Your task to perform on an android device: Add bose soundlink to the cart on newegg.com Image 0: 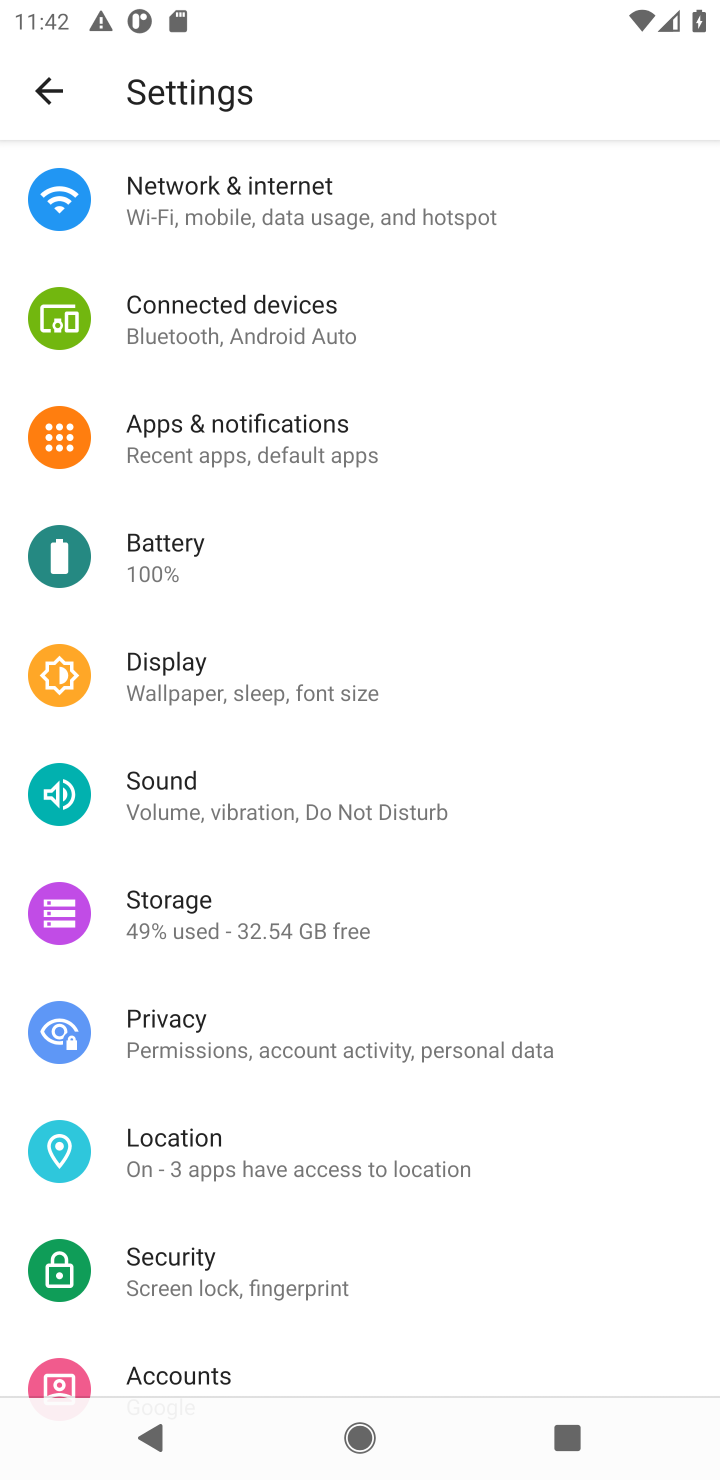
Step 0: press home button
Your task to perform on an android device: Add bose soundlink to the cart on newegg.com Image 1: 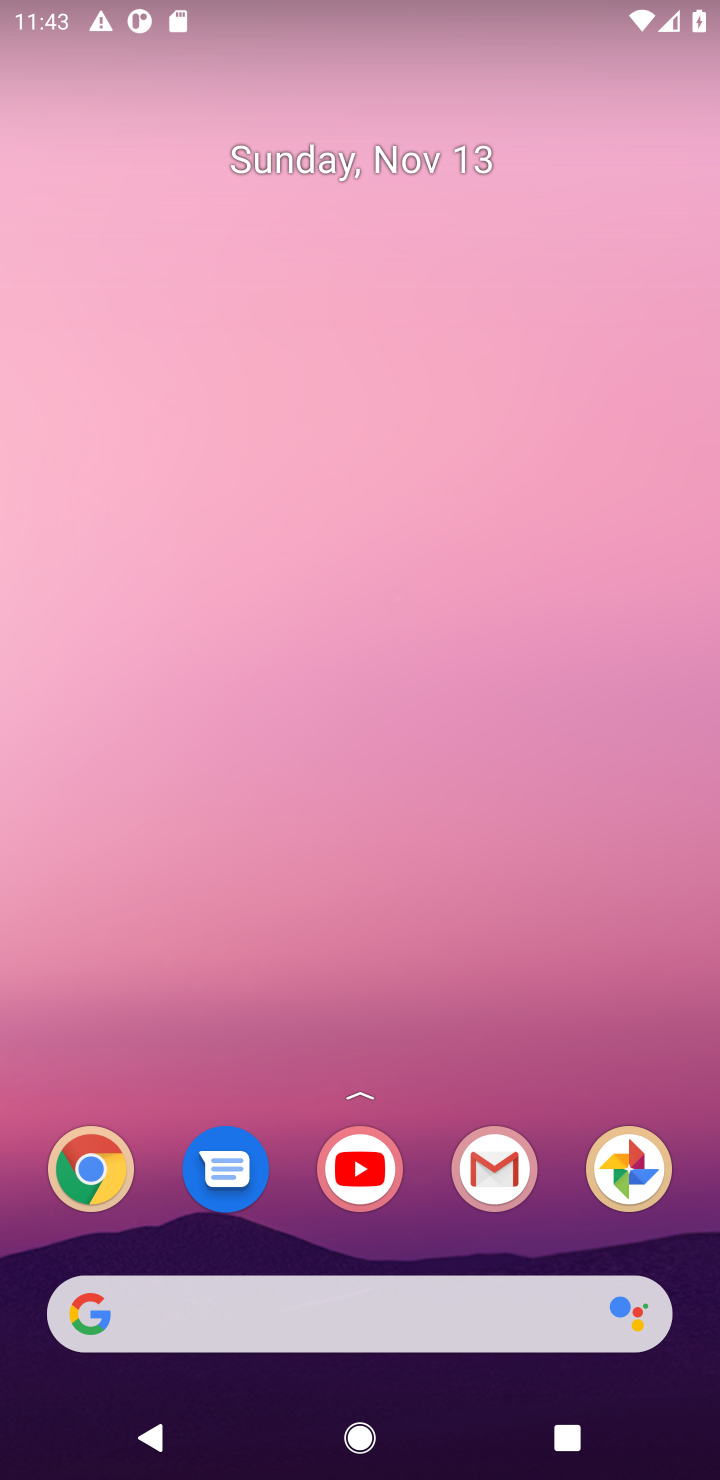
Step 1: drag from (513, 1183) to (478, 5)
Your task to perform on an android device: Add bose soundlink to the cart on newegg.com Image 2: 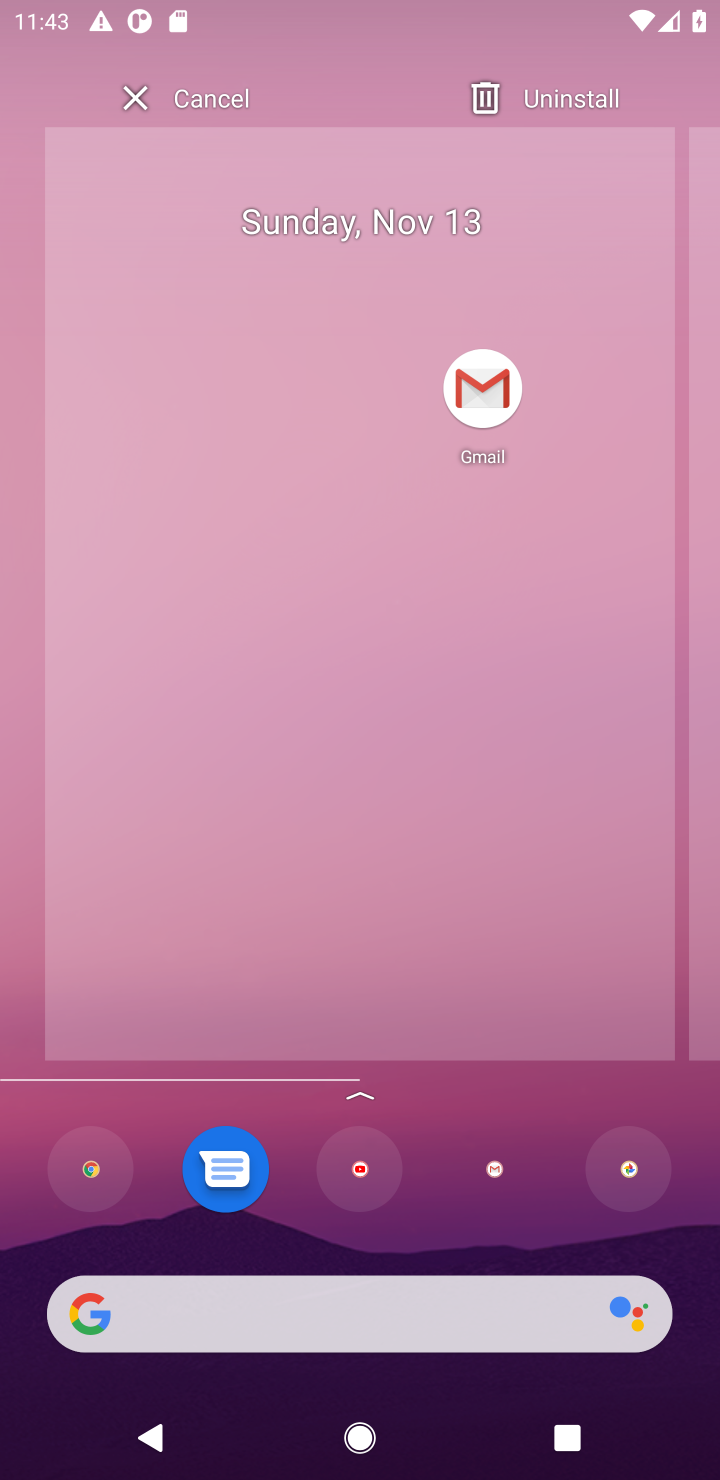
Step 2: click (288, 1229)
Your task to perform on an android device: Add bose soundlink to the cart on newegg.com Image 3: 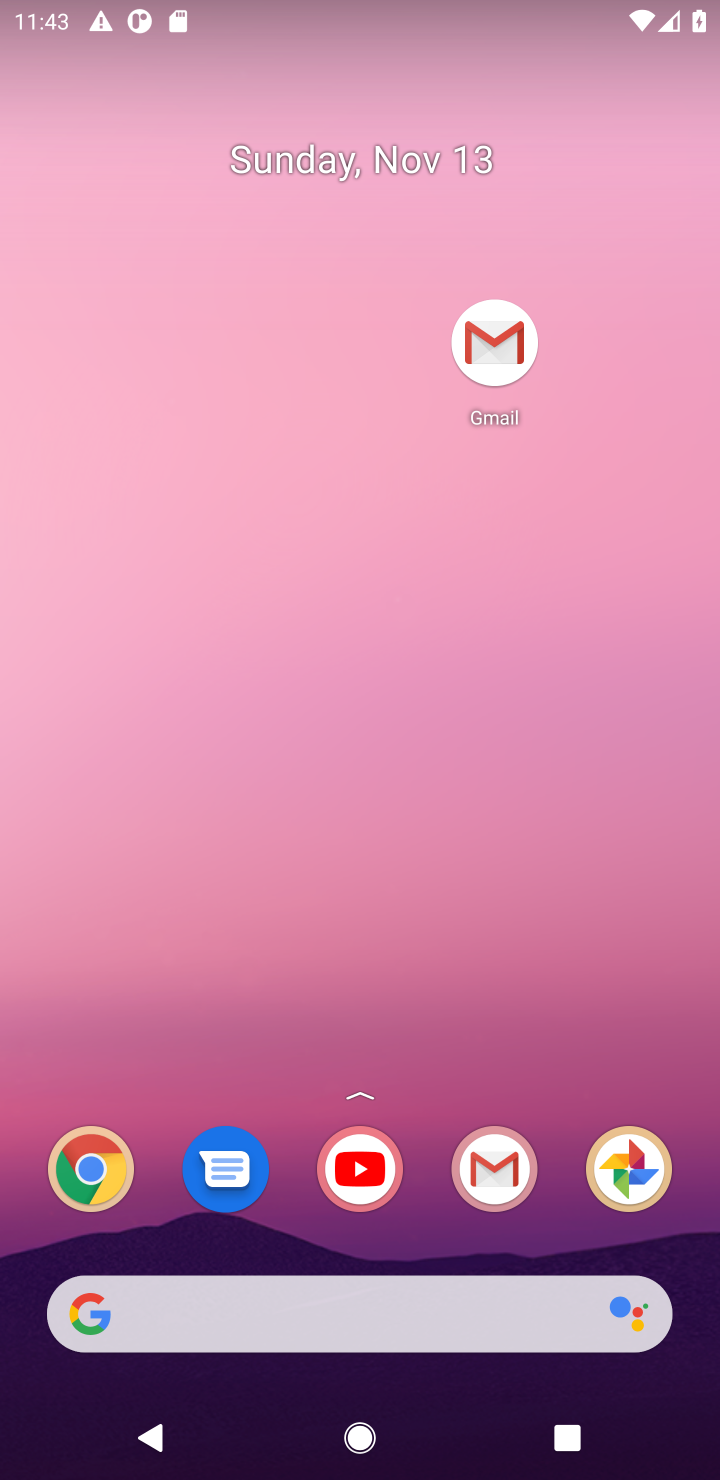
Step 3: drag from (391, 1233) to (262, 0)
Your task to perform on an android device: Add bose soundlink to the cart on newegg.com Image 4: 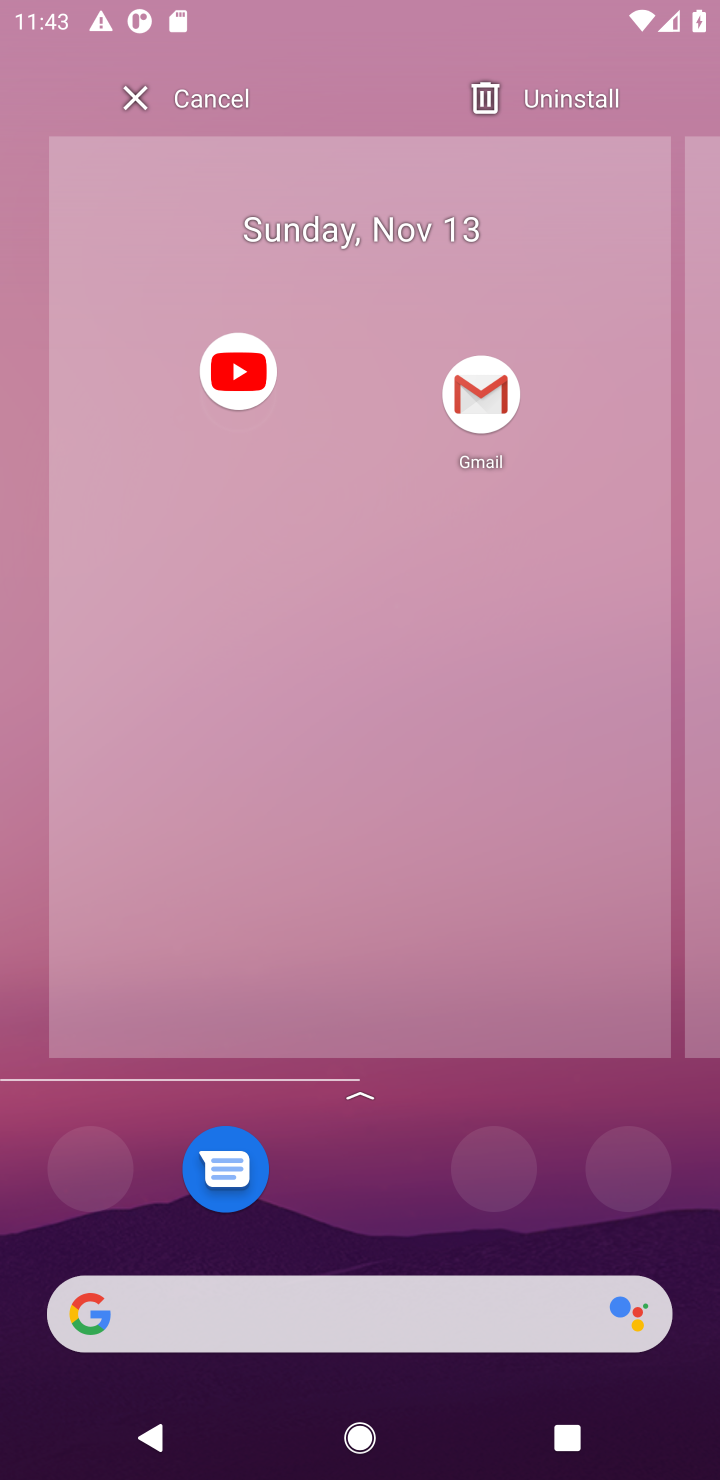
Step 4: click (366, 892)
Your task to perform on an android device: Add bose soundlink to the cart on newegg.com Image 5: 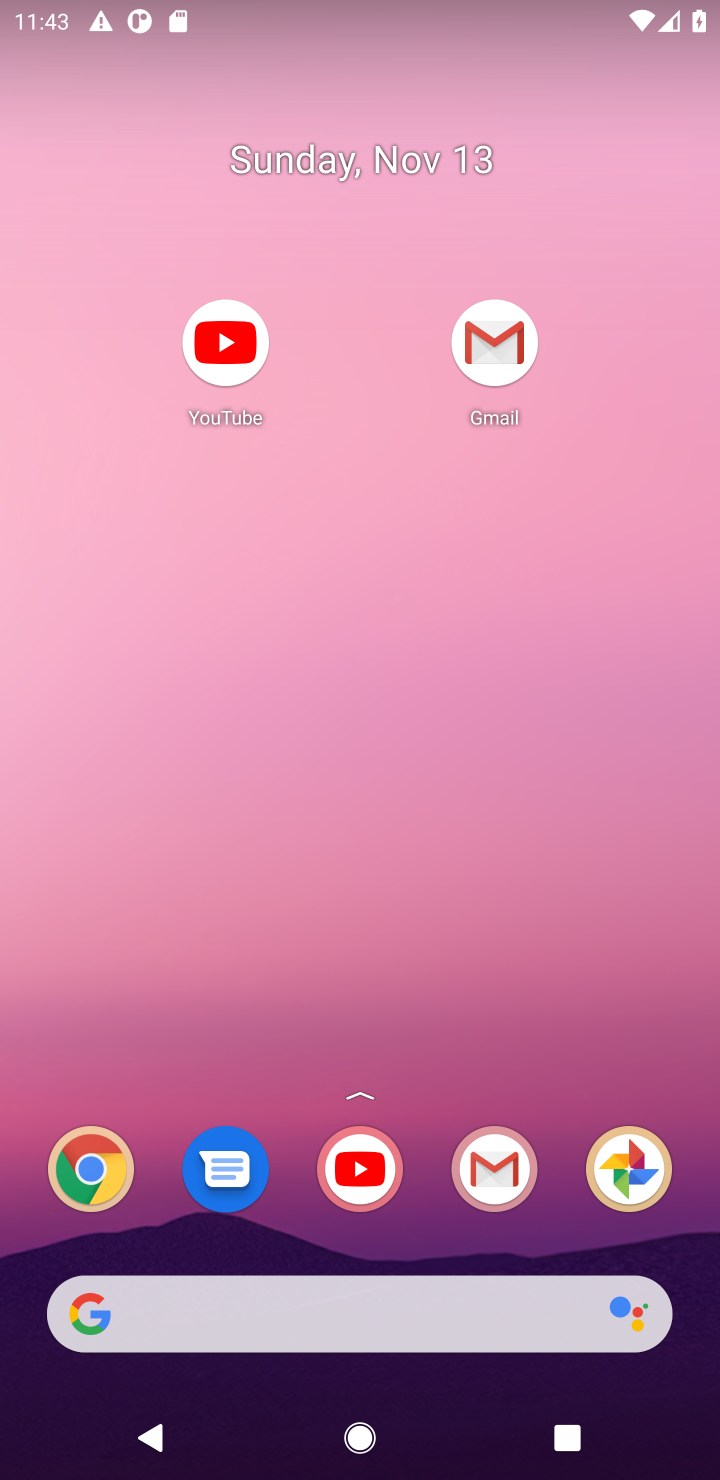
Step 5: drag from (430, 1233) to (420, 45)
Your task to perform on an android device: Add bose soundlink to the cart on newegg.com Image 6: 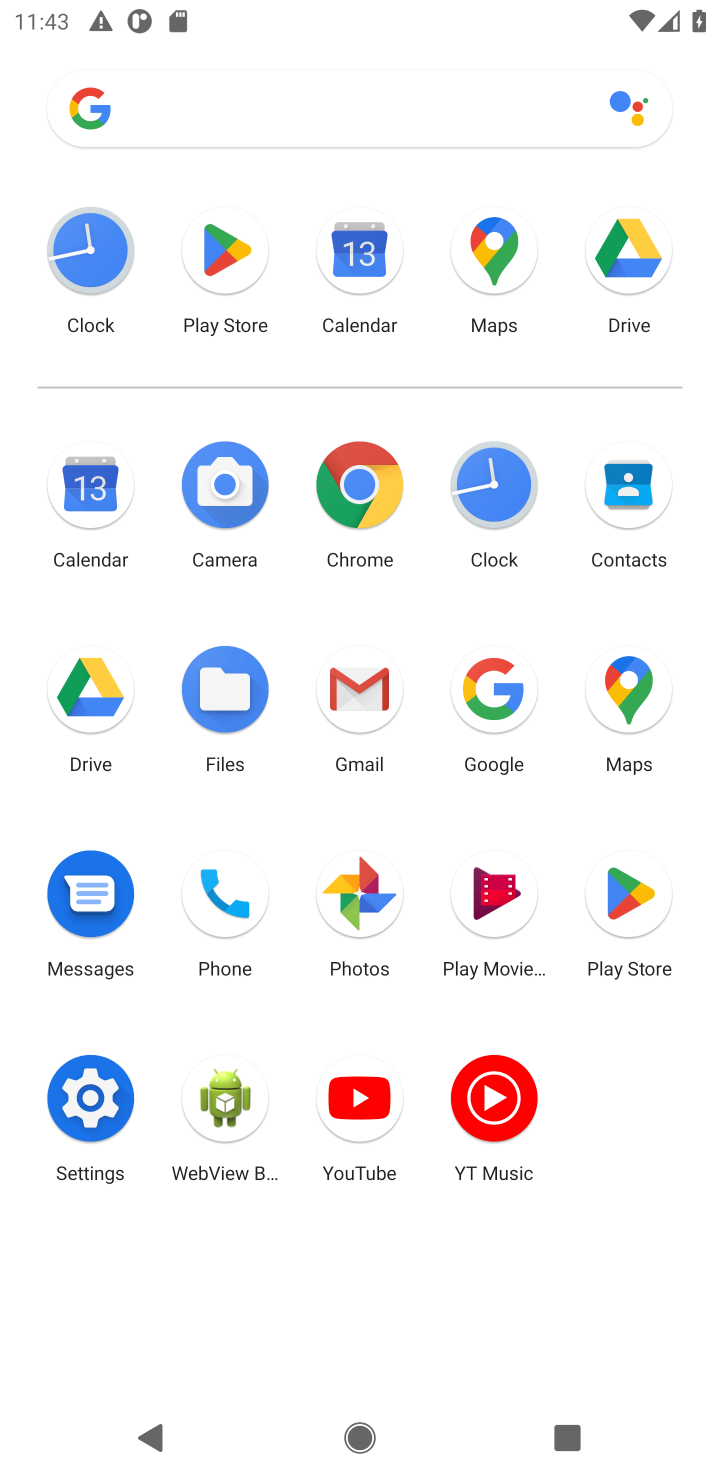
Step 6: click (355, 494)
Your task to perform on an android device: Add bose soundlink to the cart on newegg.com Image 7: 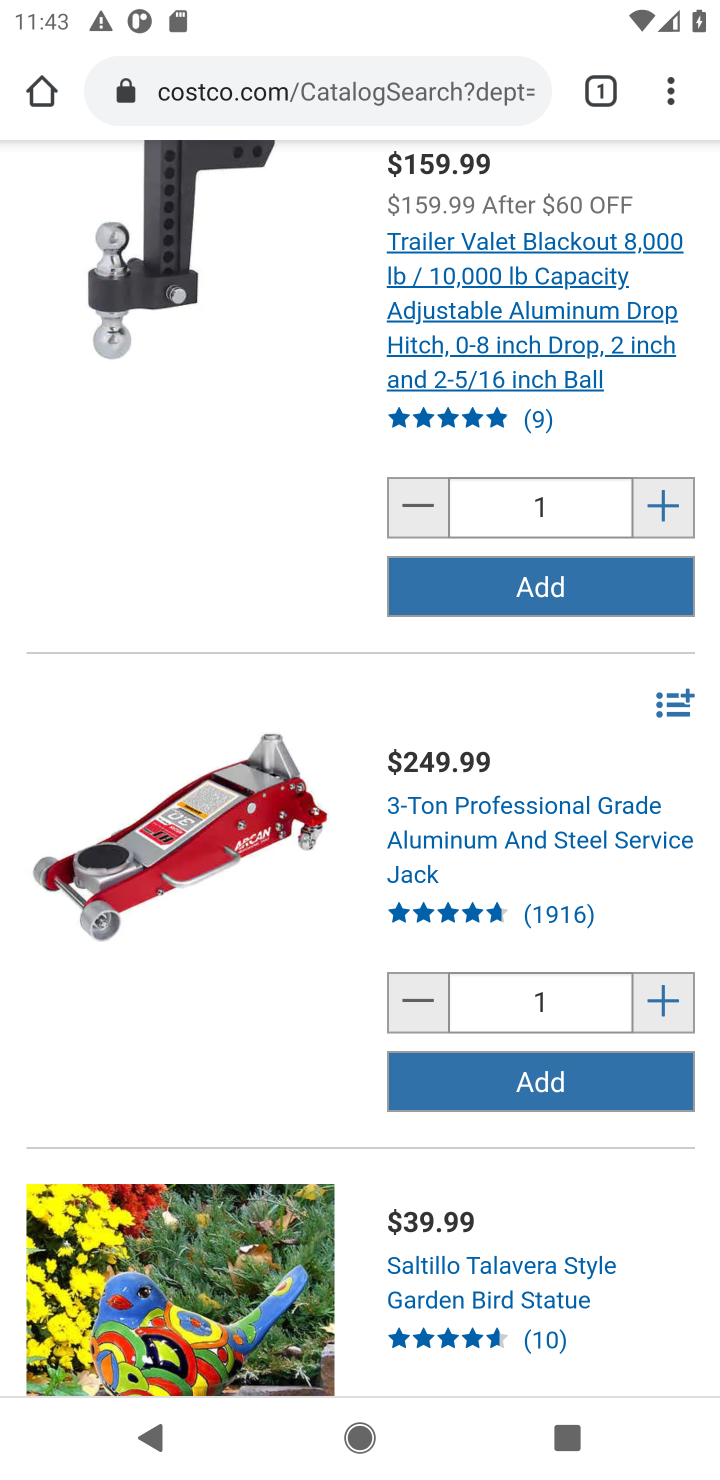
Step 7: click (450, 100)
Your task to perform on an android device: Add bose soundlink to the cart on newegg.com Image 8: 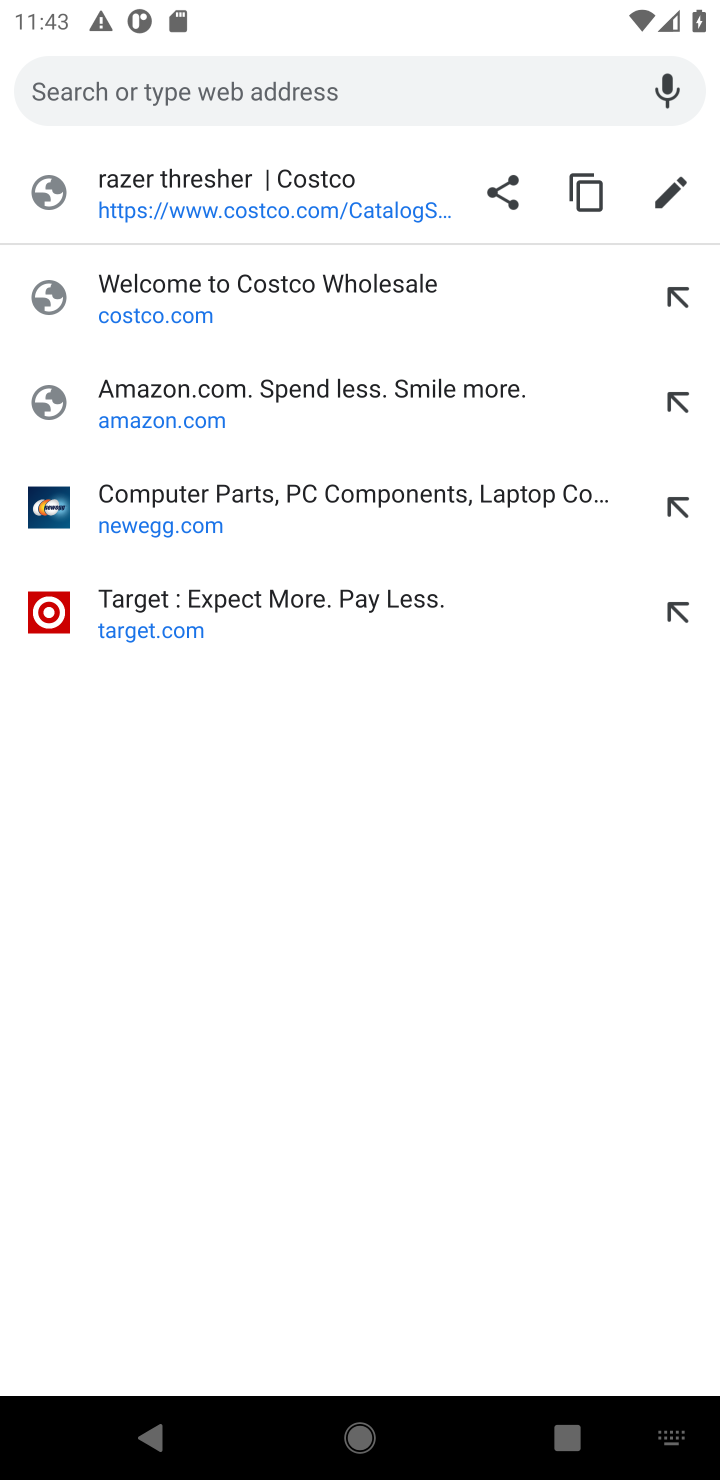
Step 8: type "newegg.com"
Your task to perform on an android device: Add bose soundlink to the cart on newegg.com Image 9: 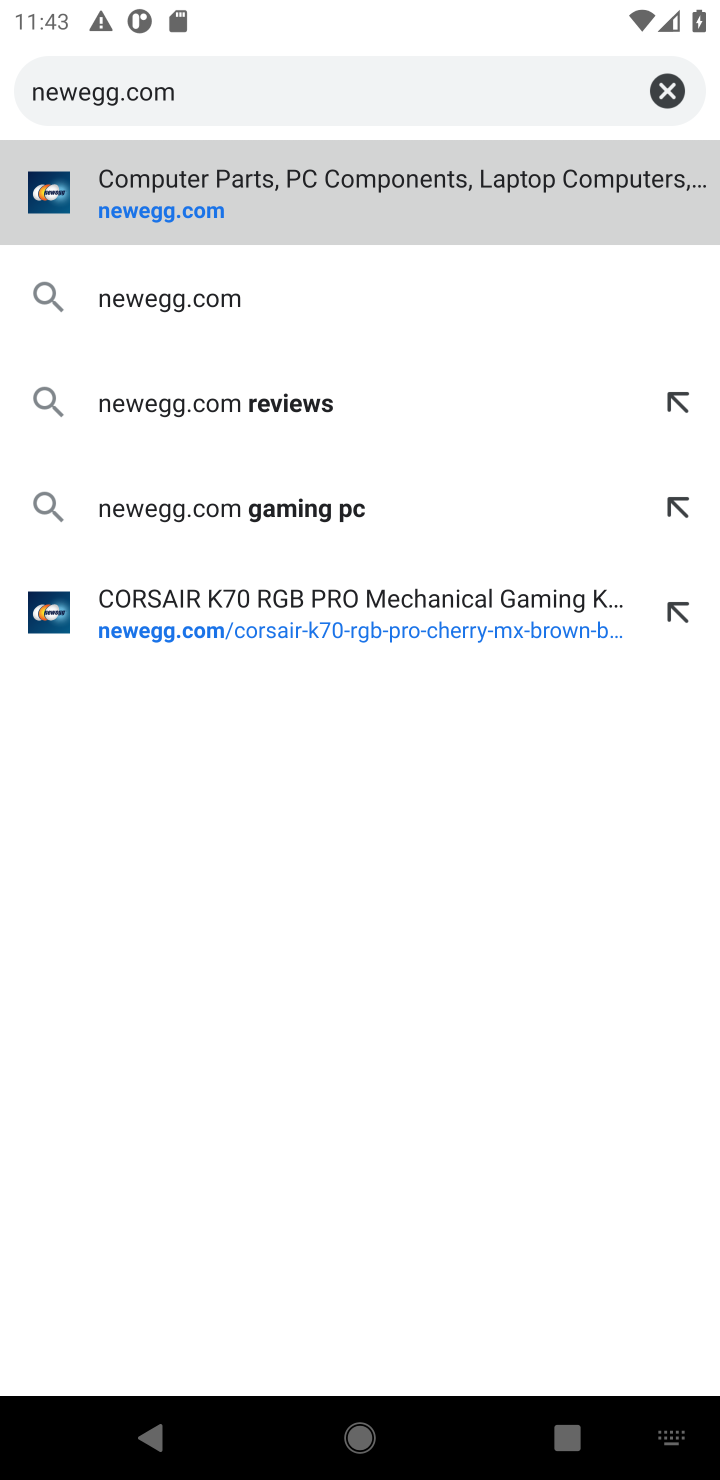
Step 9: press enter
Your task to perform on an android device: Add bose soundlink to the cart on newegg.com Image 10: 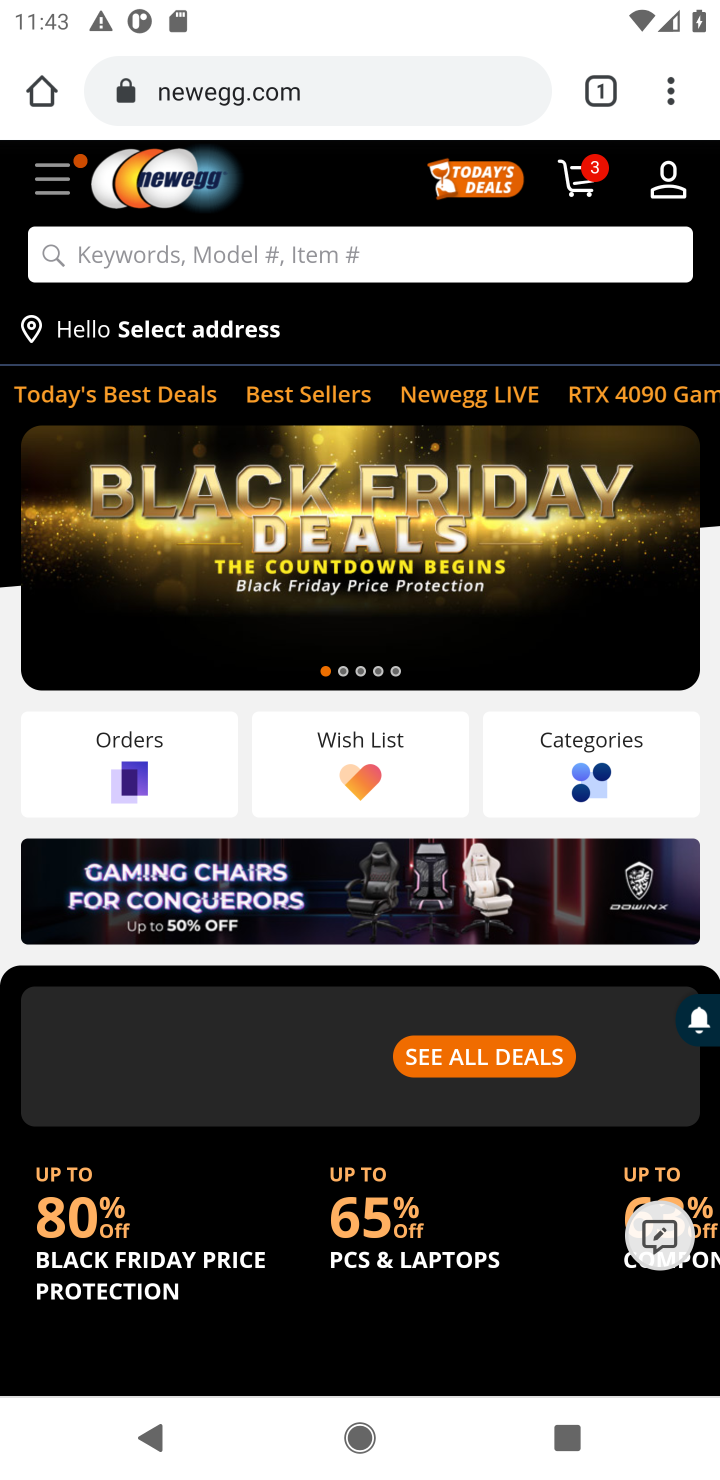
Step 10: click (238, 256)
Your task to perform on an android device: Add bose soundlink to the cart on newegg.com Image 11: 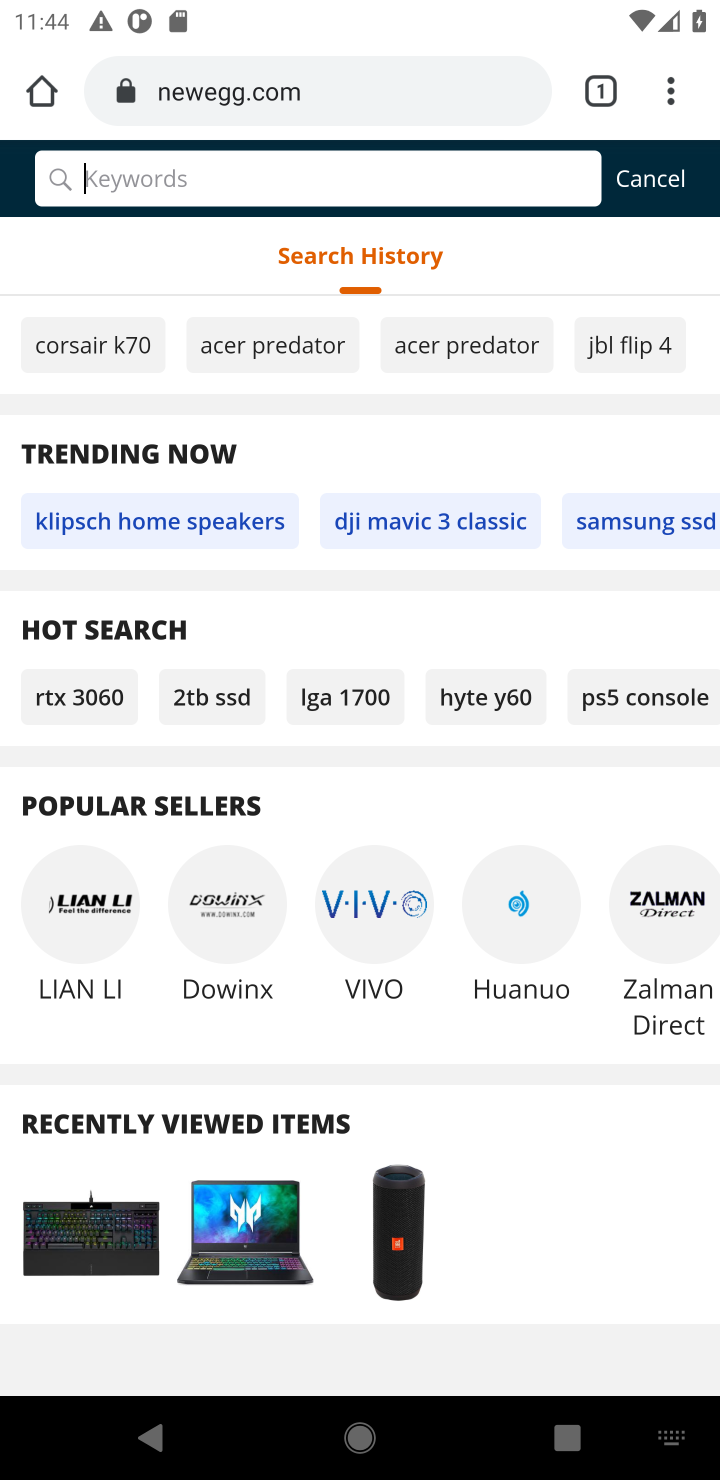
Step 11: type "bose soundlink"
Your task to perform on an android device: Add bose soundlink to the cart on newegg.com Image 12: 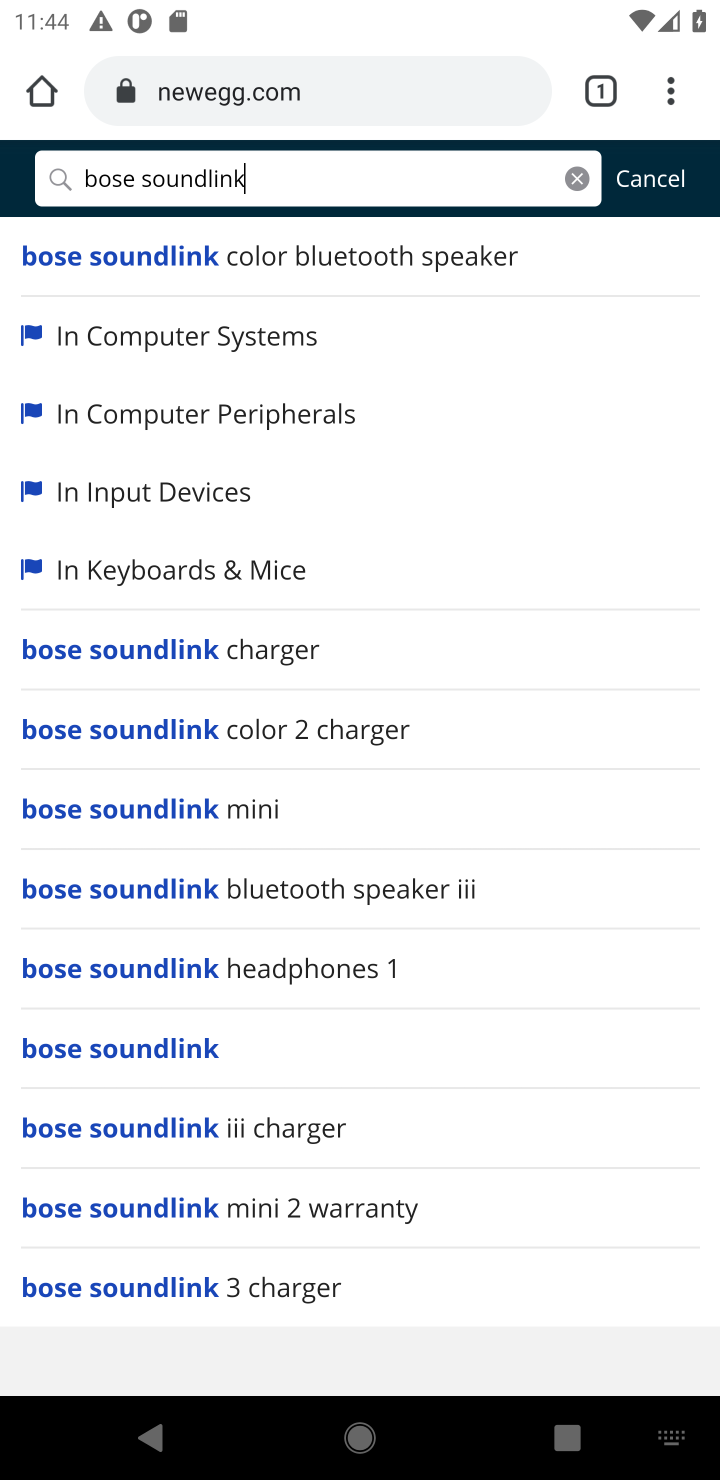
Step 12: press enter
Your task to perform on an android device: Add bose soundlink to the cart on newegg.com Image 13: 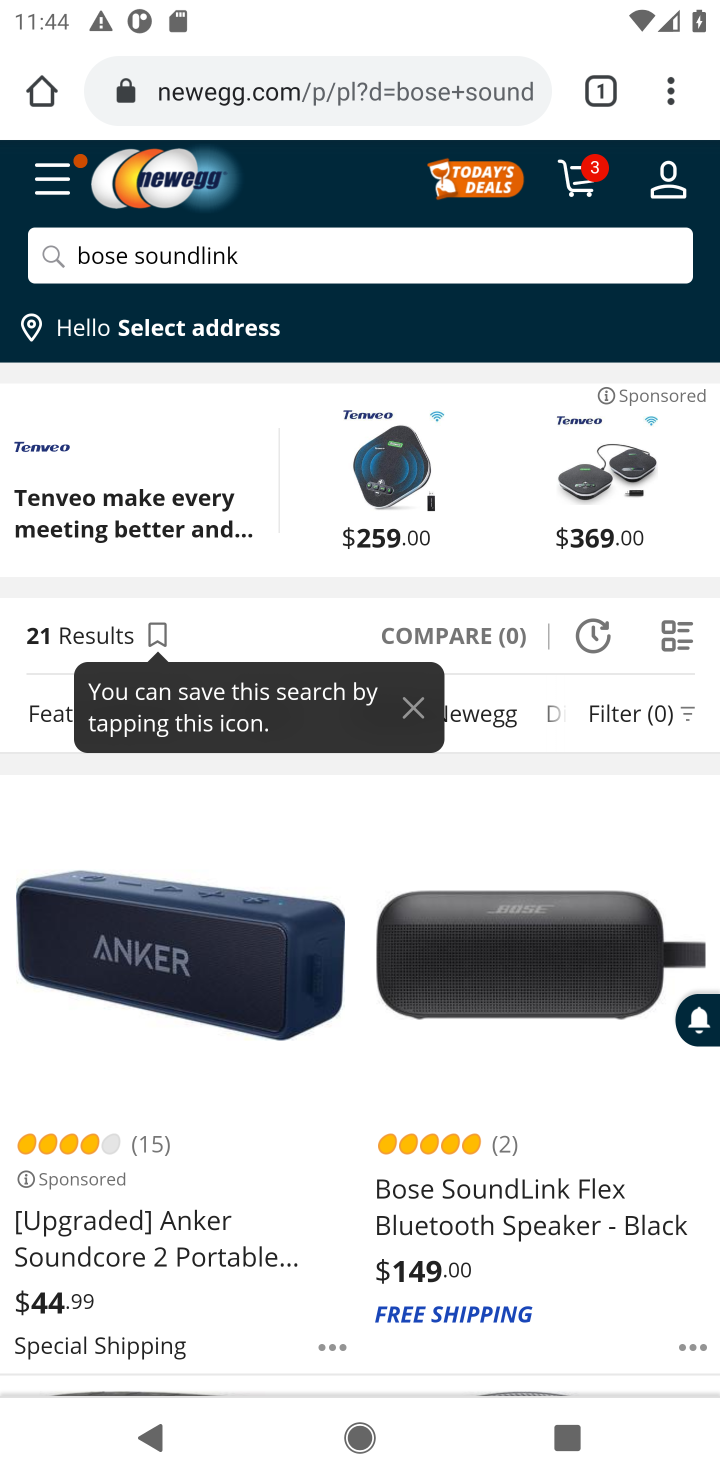
Step 13: drag from (433, 1075) to (388, 640)
Your task to perform on an android device: Add bose soundlink to the cart on newegg.com Image 14: 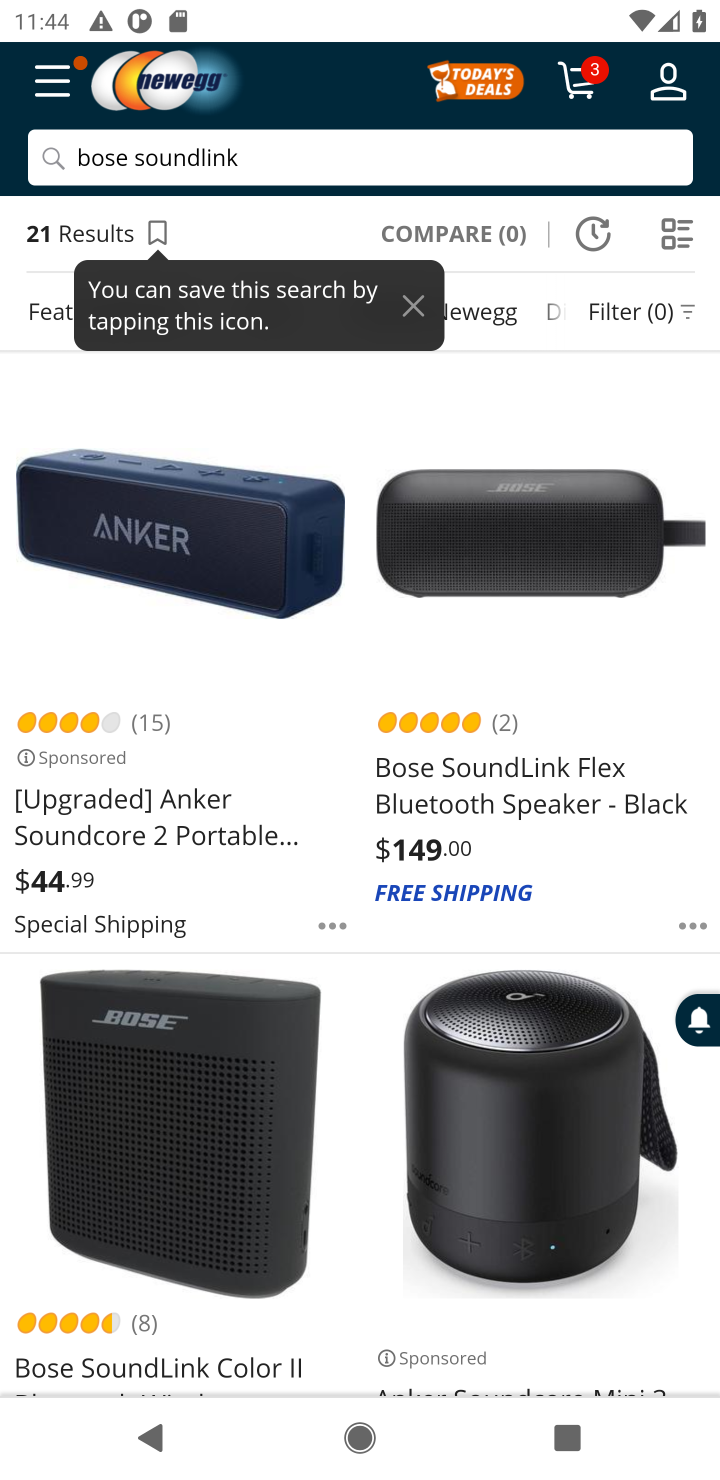
Step 14: drag from (310, 1284) to (337, 829)
Your task to perform on an android device: Add bose soundlink to the cart on newegg.com Image 15: 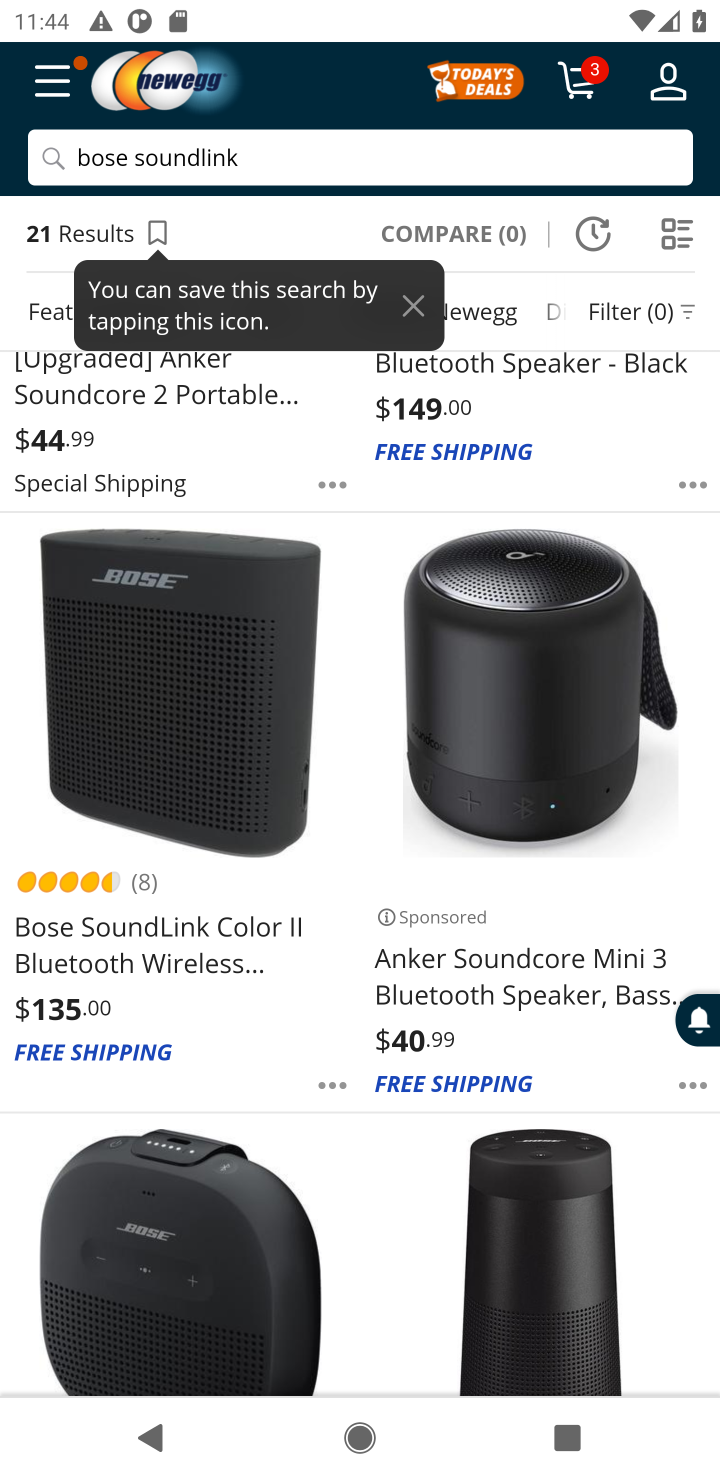
Step 15: drag from (190, 1171) to (216, 918)
Your task to perform on an android device: Add bose soundlink to the cart on newegg.com Image 16: 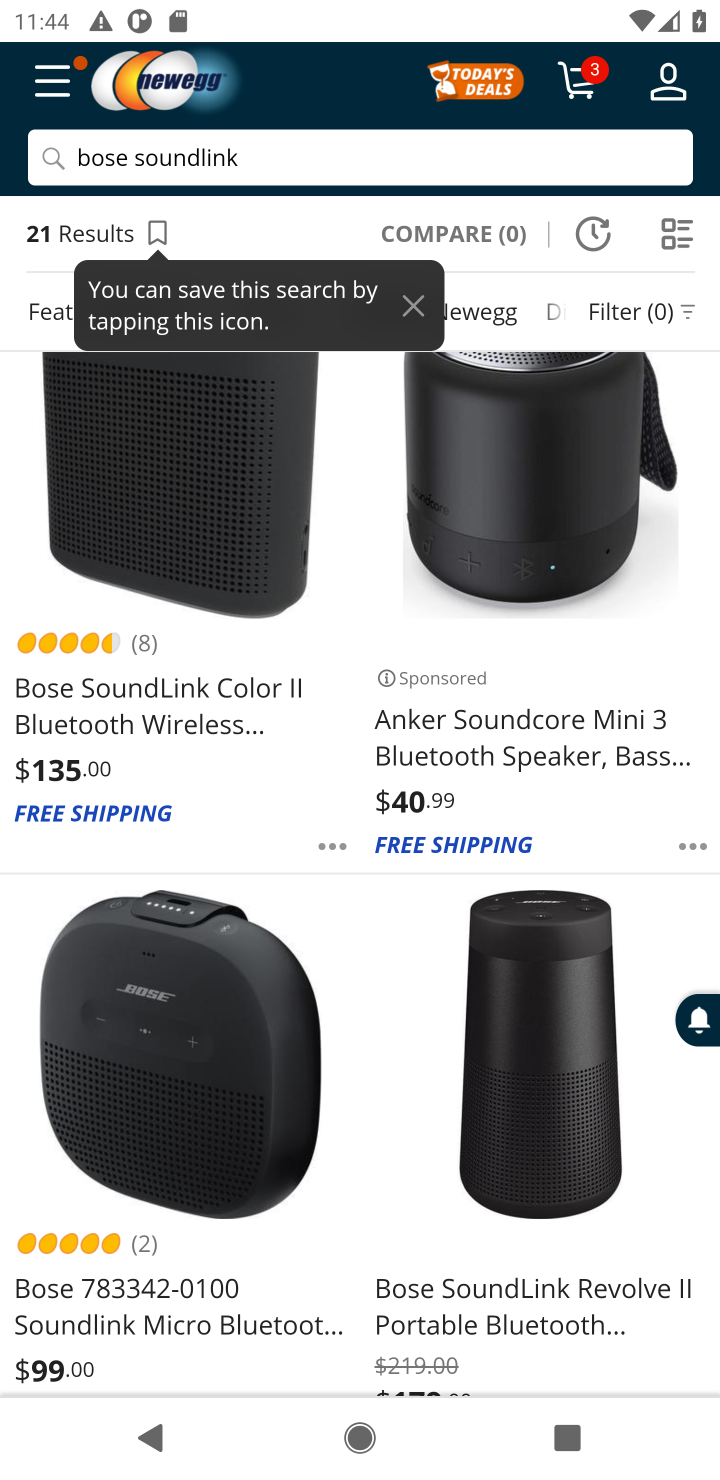
Step 16: drag from (381, 1063) to (298, 1293)
Your task to perform on an android device: Add bose soundlink to the cart on newegg.com Image 17: 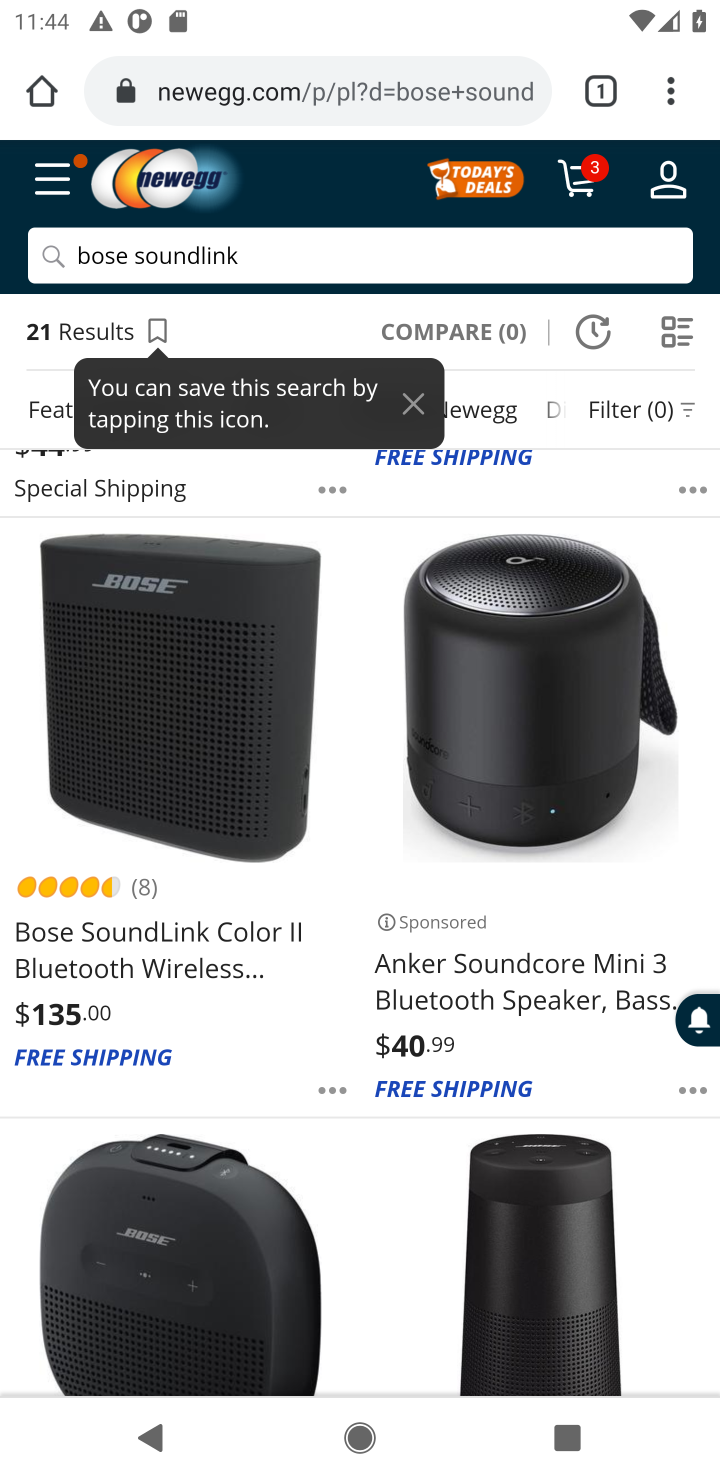
Step 17: drag from (314, 739) to (291, 1194)
Your task to perform on an android device: Add bose soundlink to the cart on newegg.com Image 18: 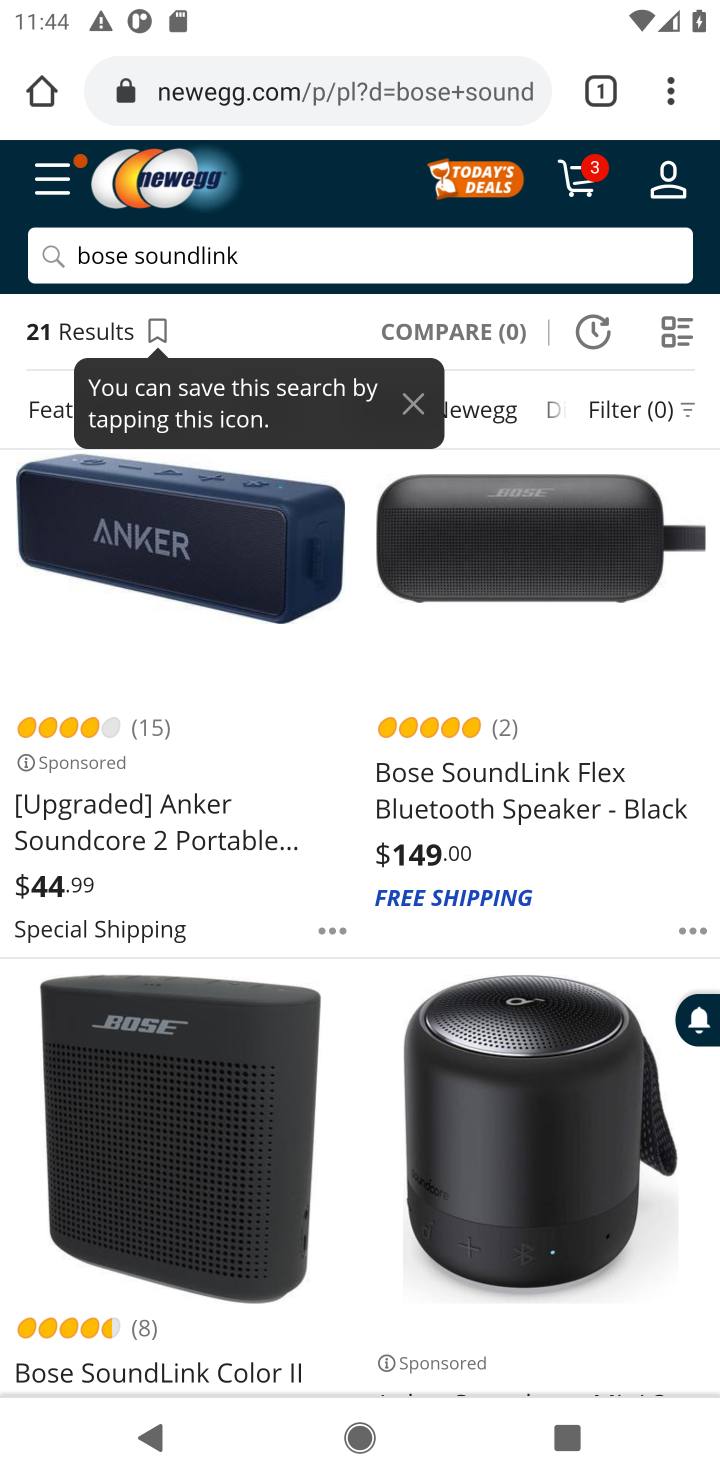
Step 18: drag from (440, 579) to (384, 915)
Your task to perform on an android device: Add bose soundlink to the cart on newegg.com Image 19: 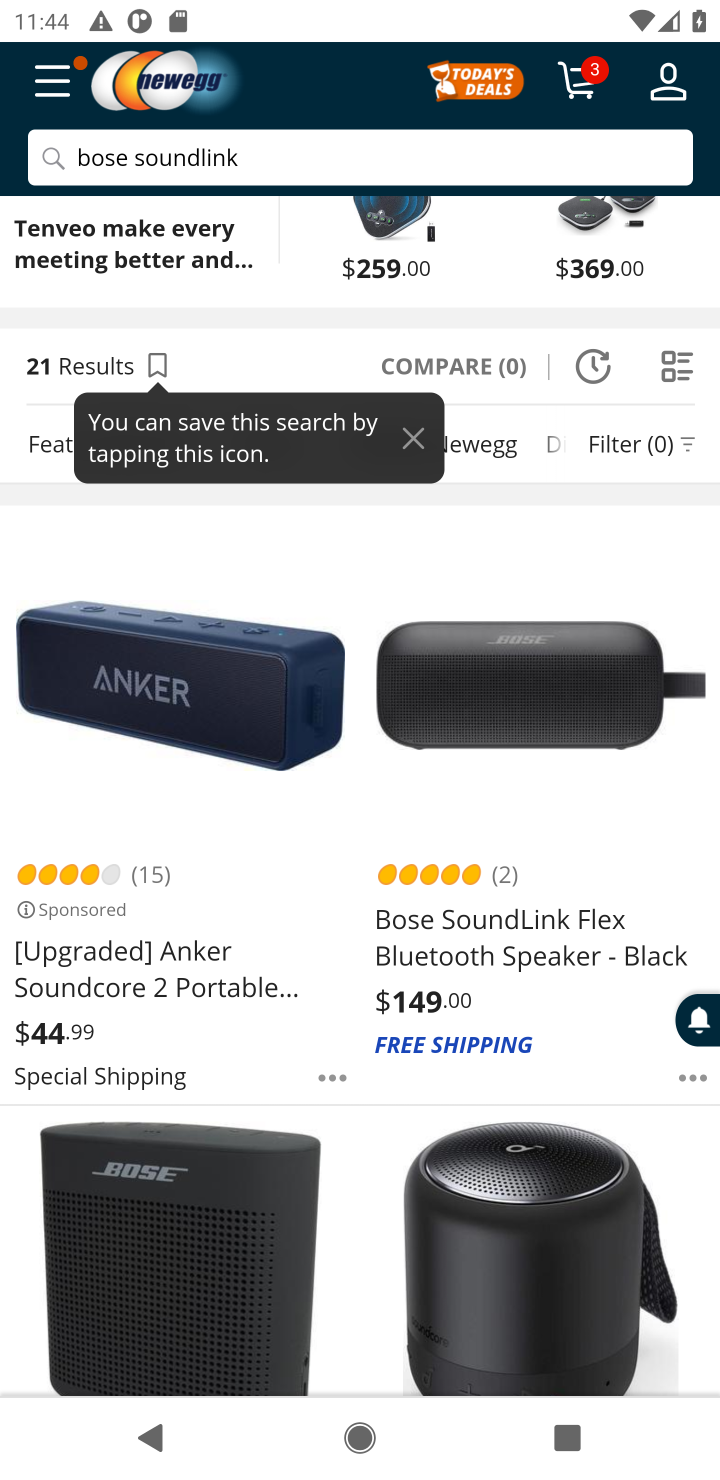
Step 19: click (531, 949)
Your task to perform on an android device: Add bose soundlink to the cart on newegg.com Image 20: 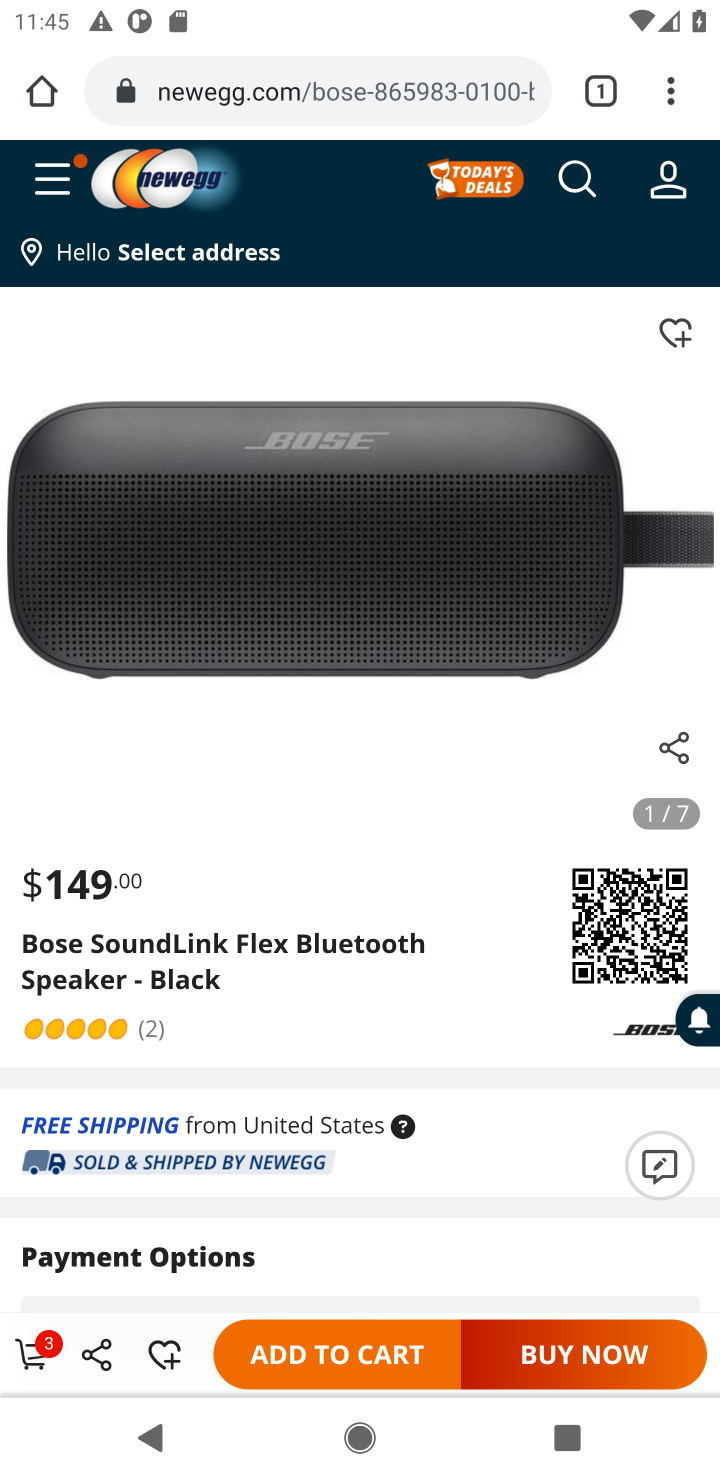
Step 20: click (336, 1352)
Your task to perform on an android device: Add bose soundlink to the cart on newegg.com Image 21: 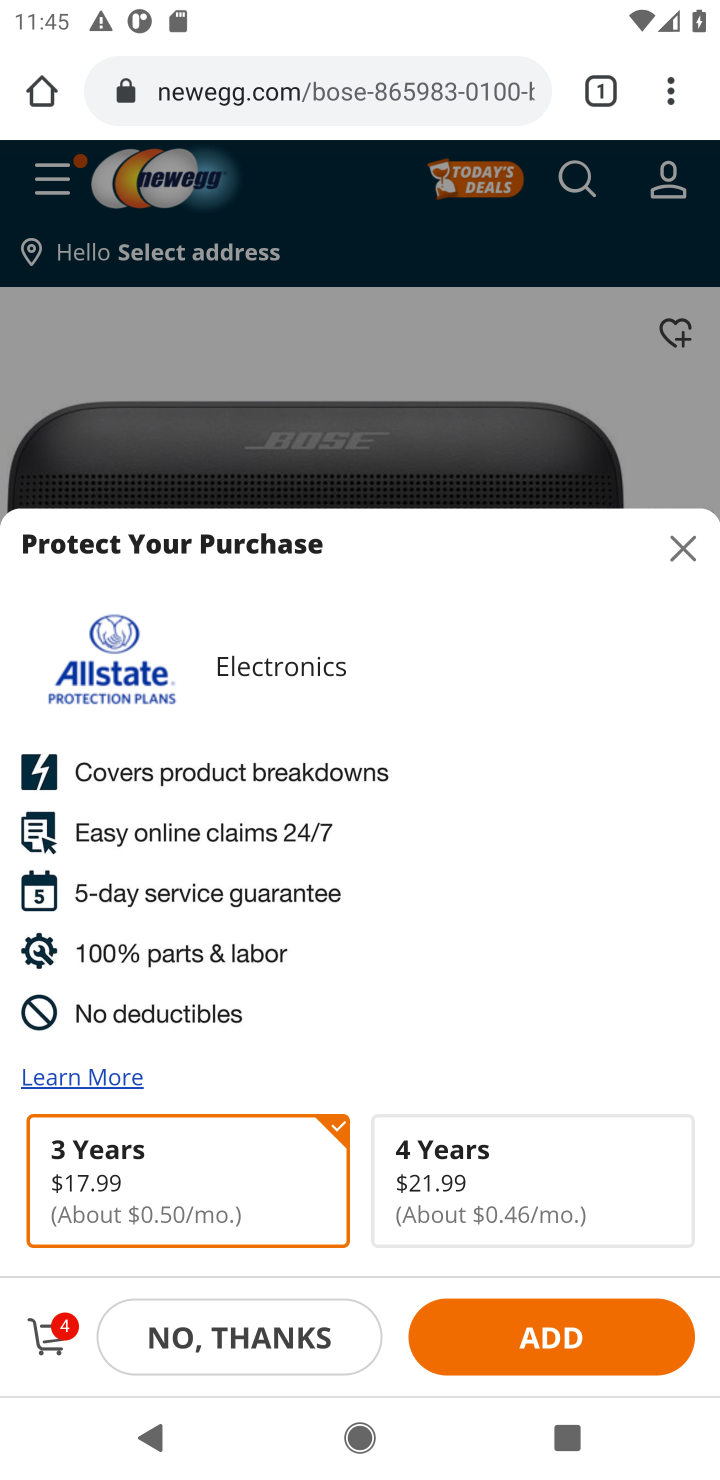
Step 21: task complete